Your task to perform on an android device: open app "Paramount+ | Peak Streaming" Image 0: 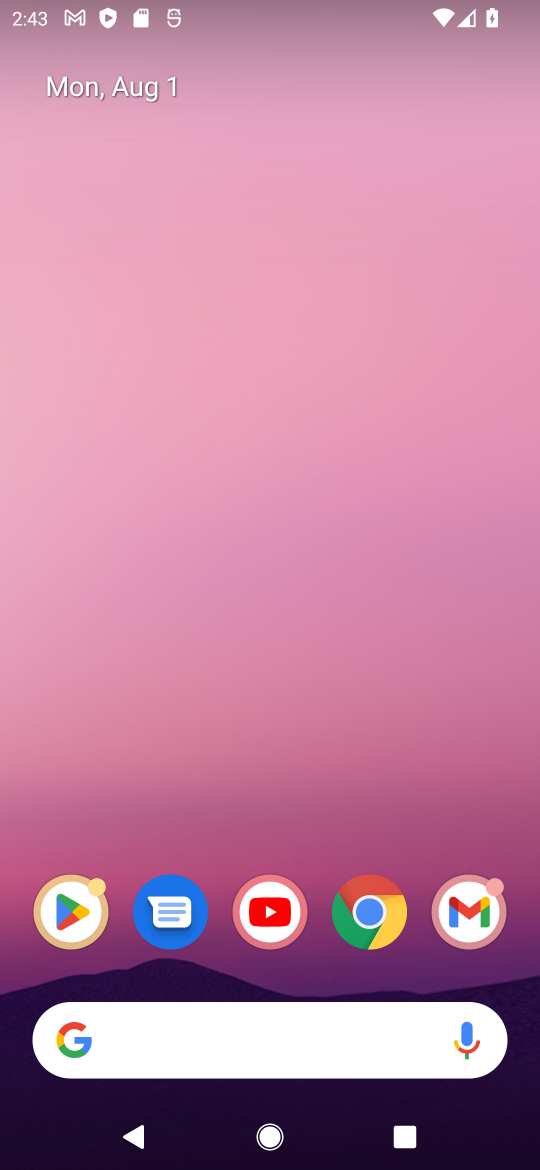
Step 0: click (78, 908)
Your task to perform on an android device: open app "Paramount+ | Peak Streaming" Image 1: 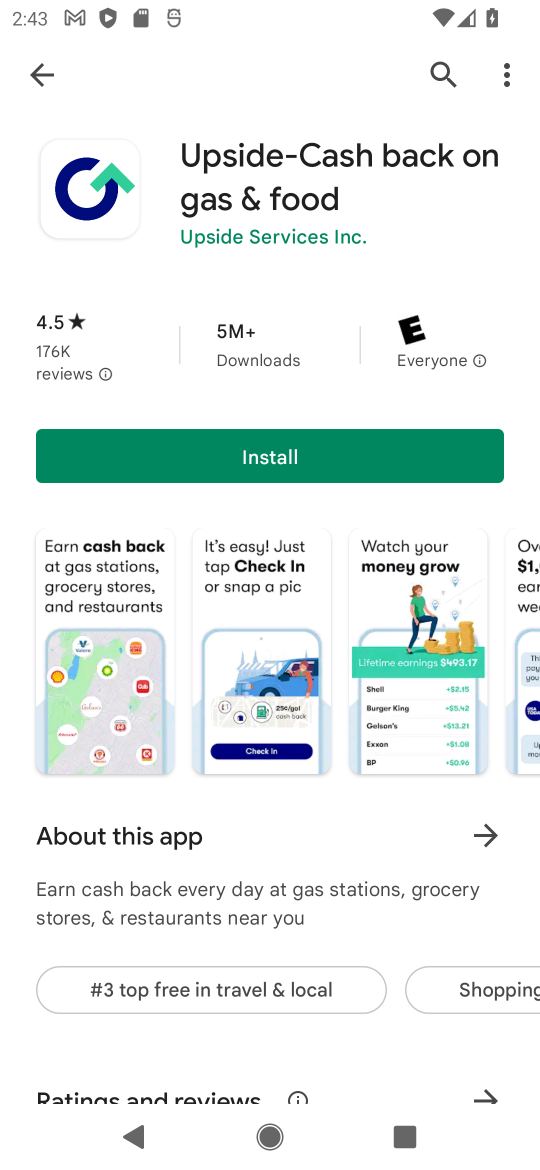
Step 1: click (443, 74)
Your task to perform on an android device: open app "Paramount+ | Peak Streaming" Image 2: 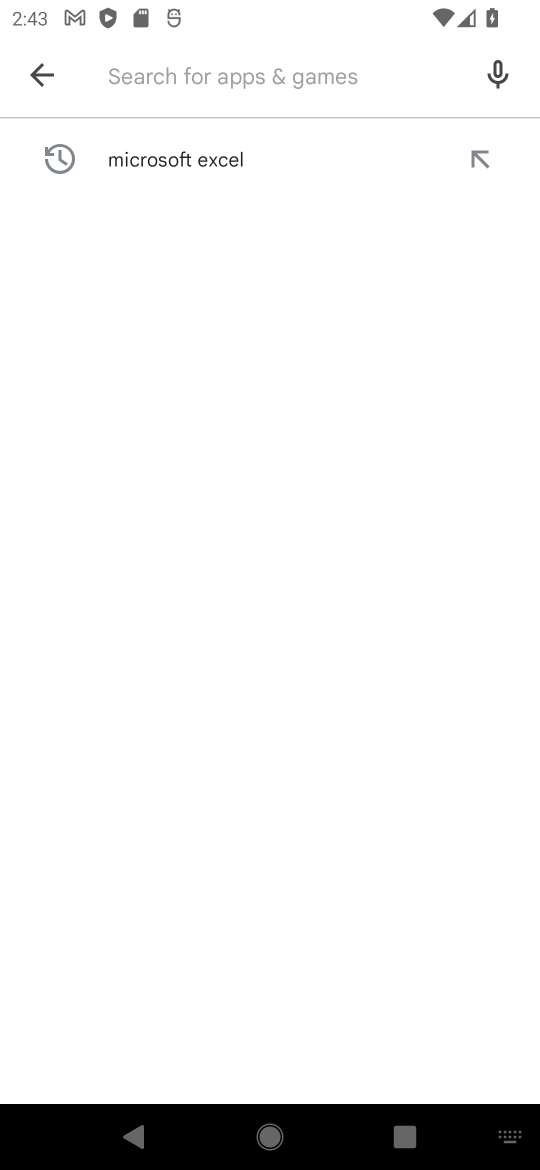
Step 2: type "Paramount+ | Peak Streaming"
Your task to perform on an android device: open app "Paramount+ | Peak Streaming" Image 3: 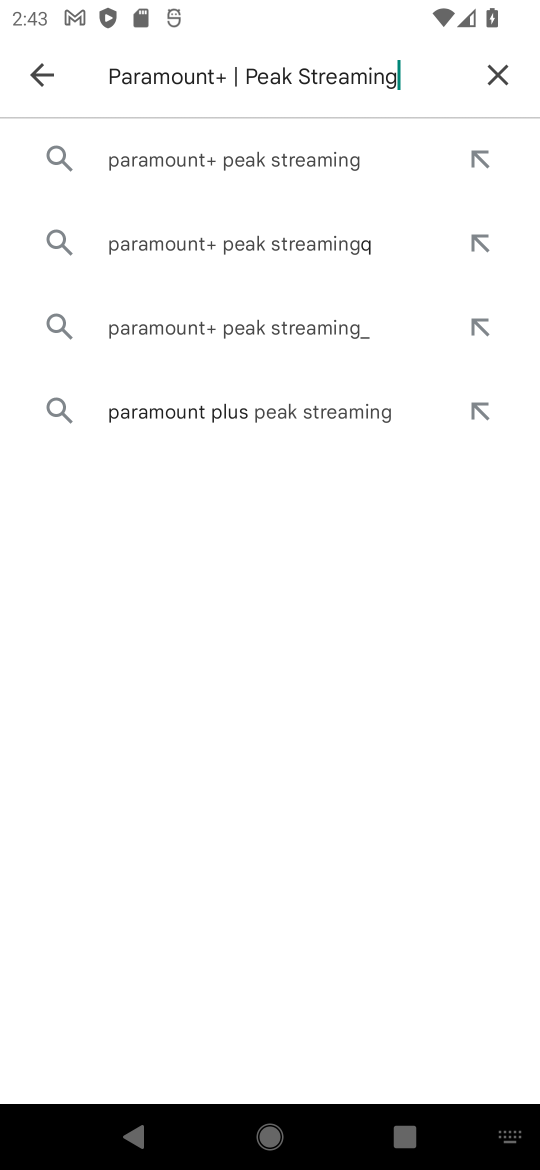
Step 3: click (263, 165)
Your task to perform on an android device: open app "Paramount+ | Peak Streaming" Image 4: 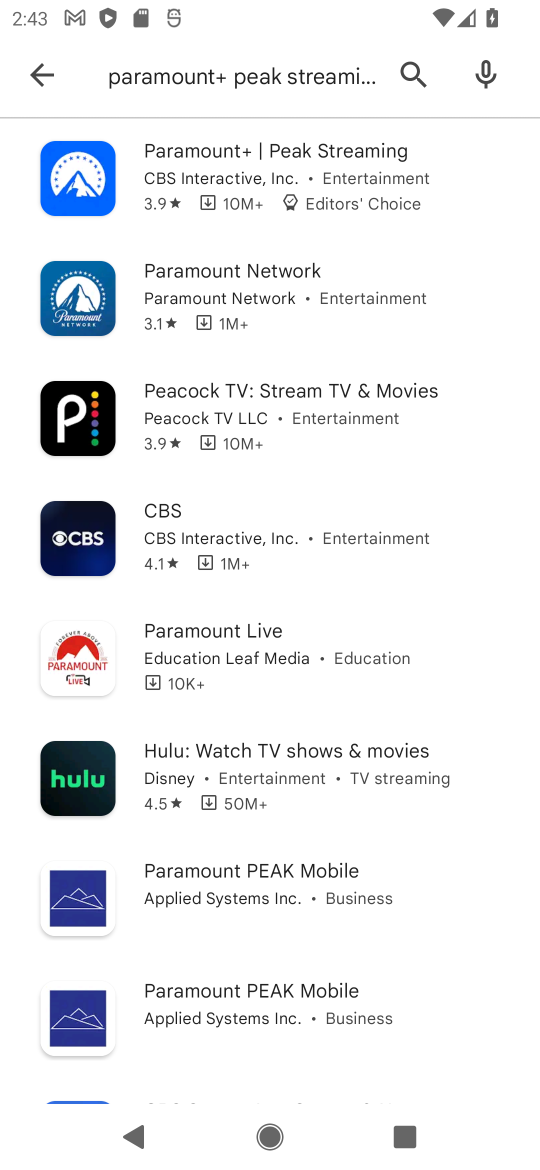
Step 4: click (263, 165)
Your task to perform on an android device: open app "Paramount+ | Peak Streaming" Image 5: 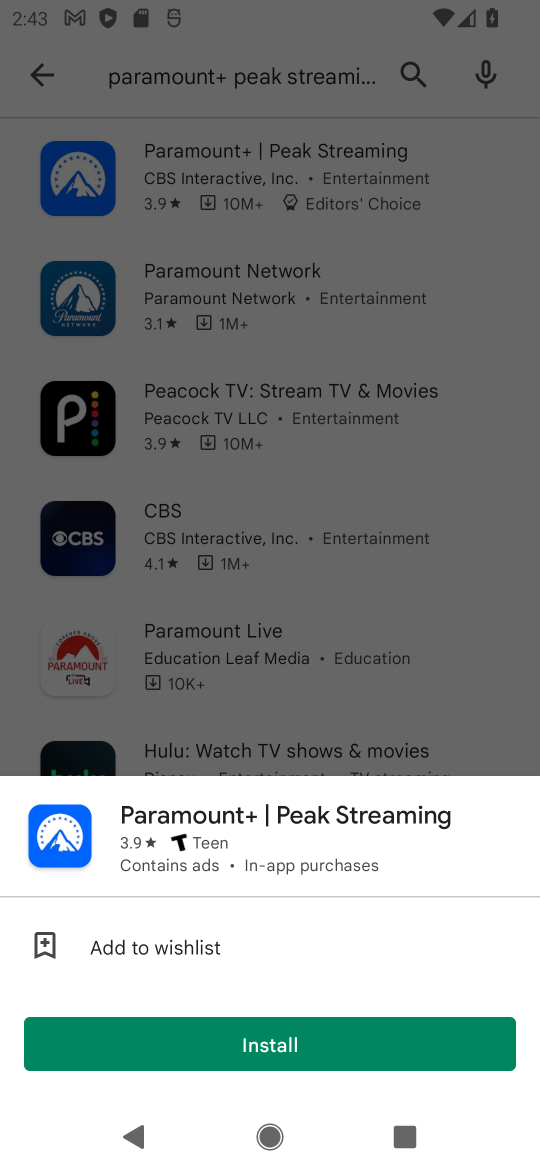
Step 5: task complete